Your task to perform on an android device: open the mobile data screen to see how much data has been used Image 0: 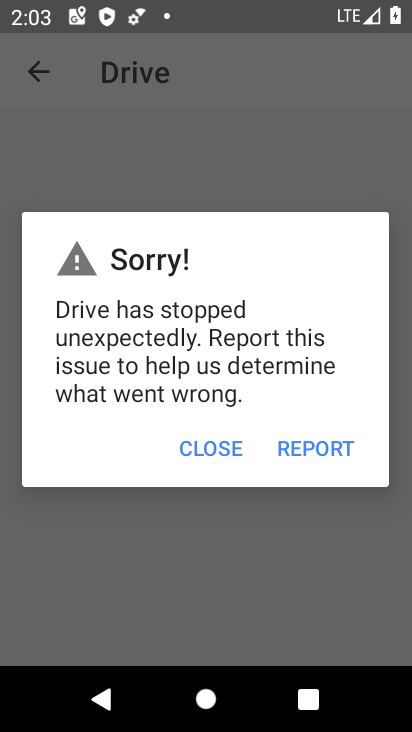
Step 0: press home button
Your task to perform on an android device: open the mobile data screen to see how much data has been used Image 1: 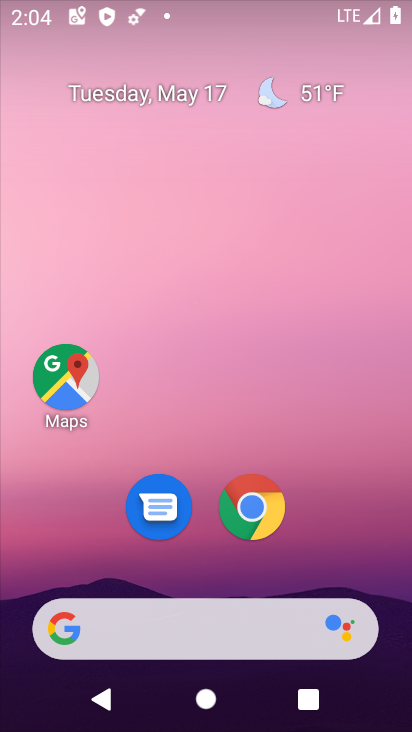
Step 1: drag from (351, 568) to (369, 43)
Your task to perform on an android device: open the mobile data screen to see how much data has been used Image 2: 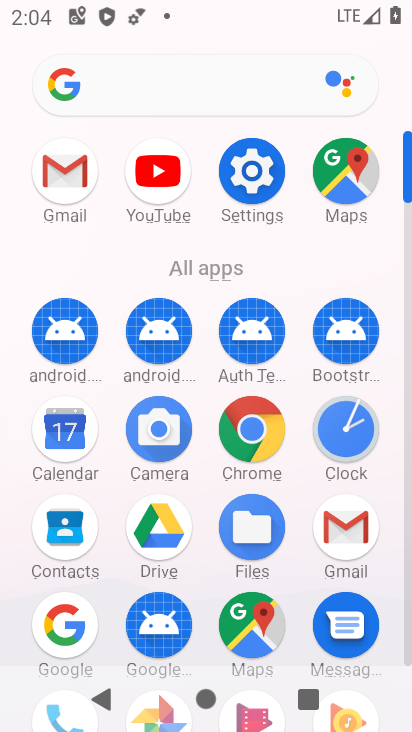
Step 2: click (256, 168)
Your task to perform on an android device: open the mobile data screen to see how much data has been used Image 3: 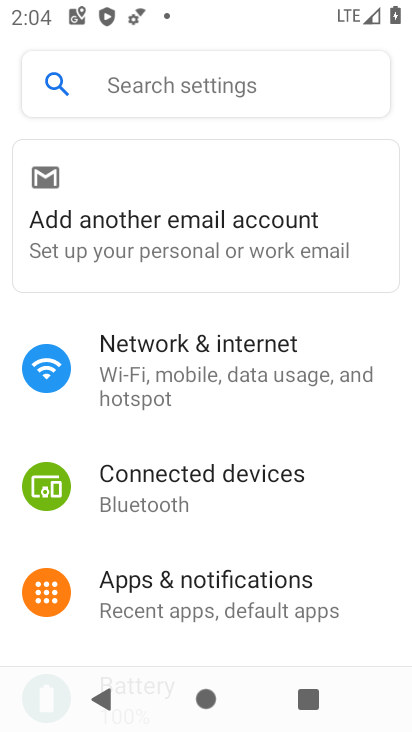
Step 3: click (207, 357)
Your task to perform on an android device: open the mobile data screen to see how much data has been used Image 4: 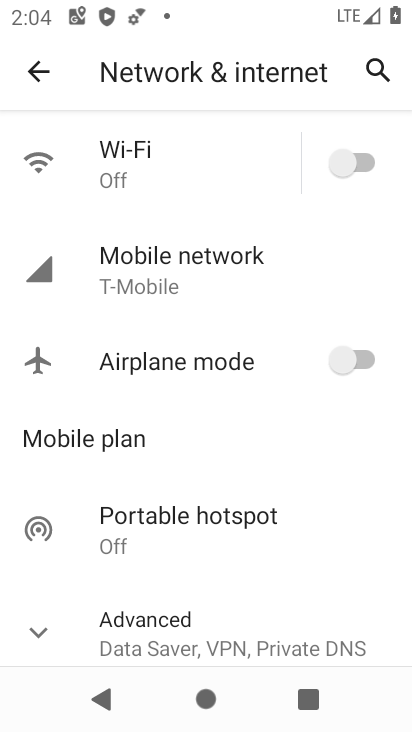
Step 4: click (196, 273)
Your task to perform on an android device: open the mobile data screen to see how much data has been used Image 5: 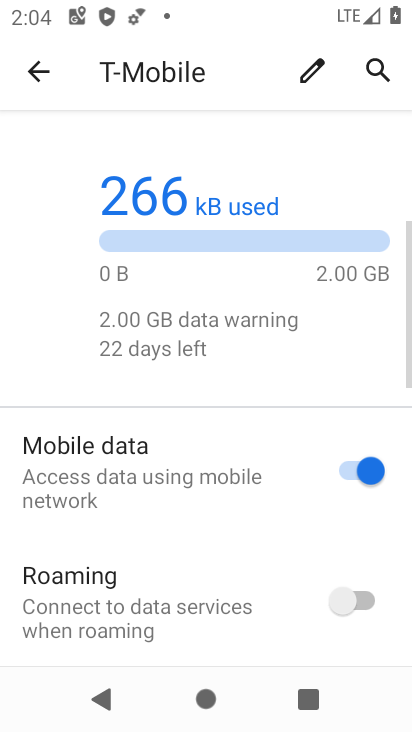
Step 5: drag from (146, 582) to (188, 243)
Your task to perform on an android device: open the mobile data screen to see how much data has been used Image 6: 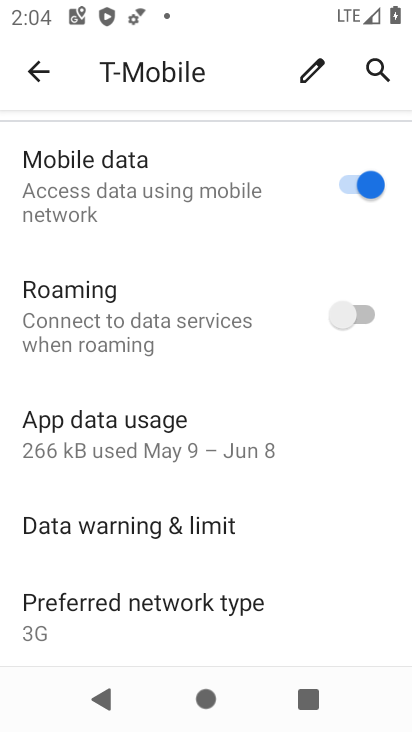
Step 6: click (159, 427)
Your task to perform on an android device: open the mobile data screen to see how much data has been used Image 7: 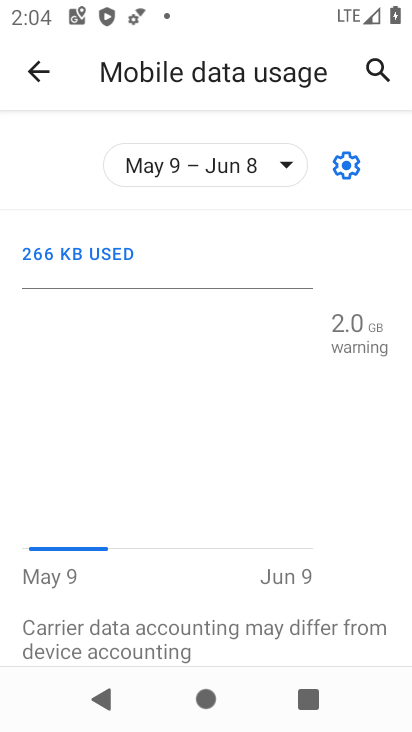
Step 7: task complete